Your task to perform on an android device: Open the web browser Image 0: 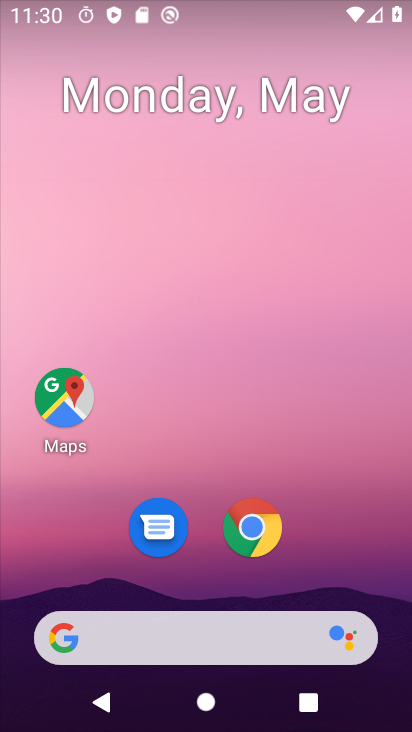
Step 0: drag from (392, 547) to (366, 223)
Your task to perform on an android device: Open the web browser Image 1: 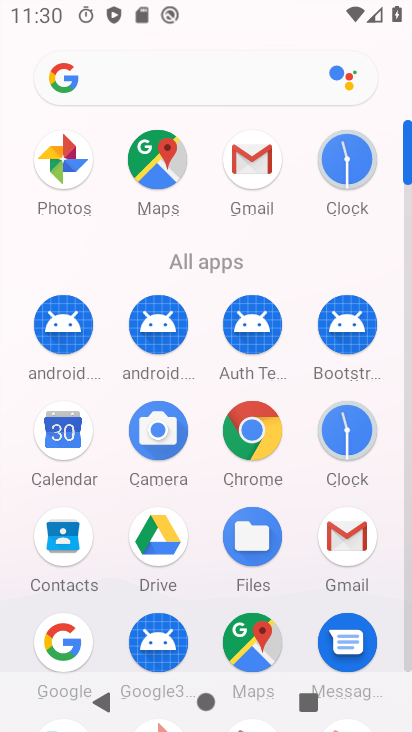
Step 1: drag from (185, 601) to (186, 268)
Your task to perform on an android device: Open the web browser Image 2: 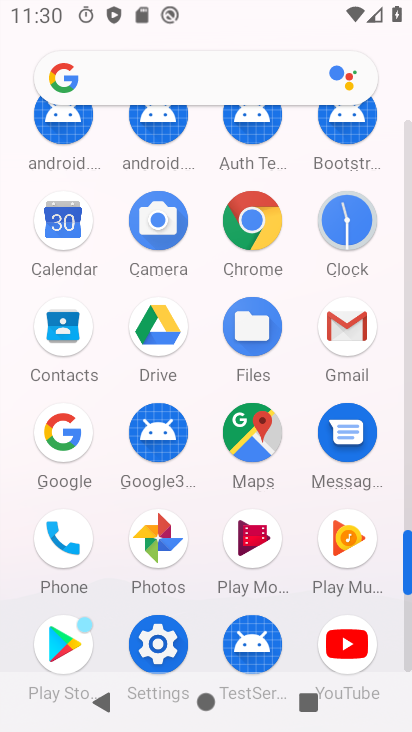
Step 2: drag from (200, 583) to (196, 279)
Your task to perform on an android device: Open the web browser Image 3: 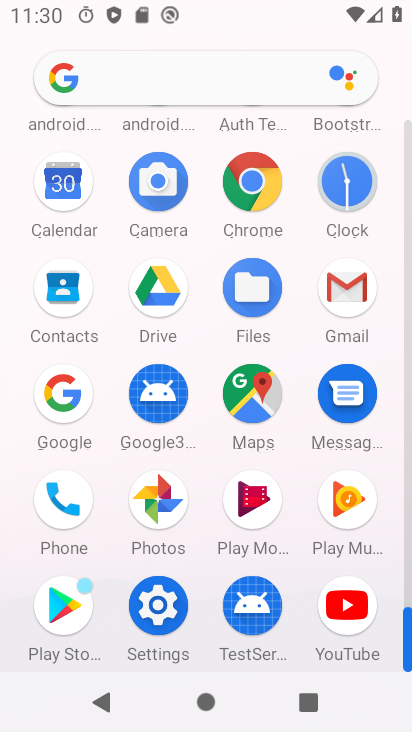
Step 3: drag from (221, 186) to (209, 619)
Your task to perform on an android device: Open the web browser Image 4: 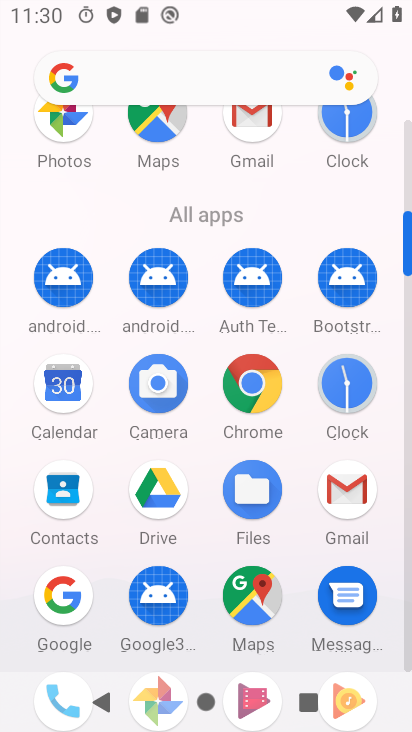
Step 4: drag from (208, 229) to (213, 604)
Your task to perform on an android device: Open the web browser Image 5: 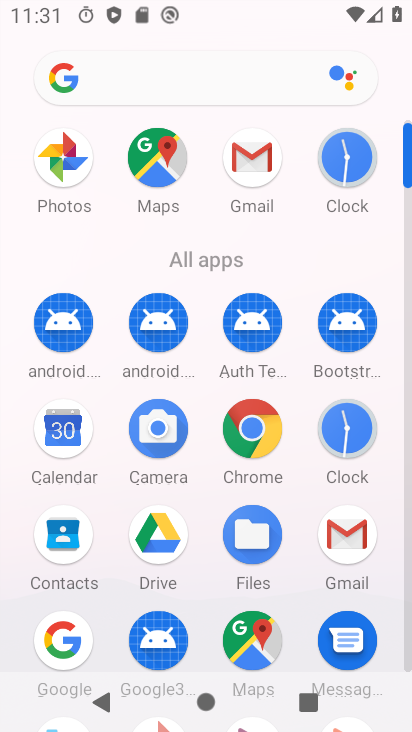
Step 5: drag from (237, 556) to (255, 231)
Your task to perform on an android device: Open the web browser Image 6: 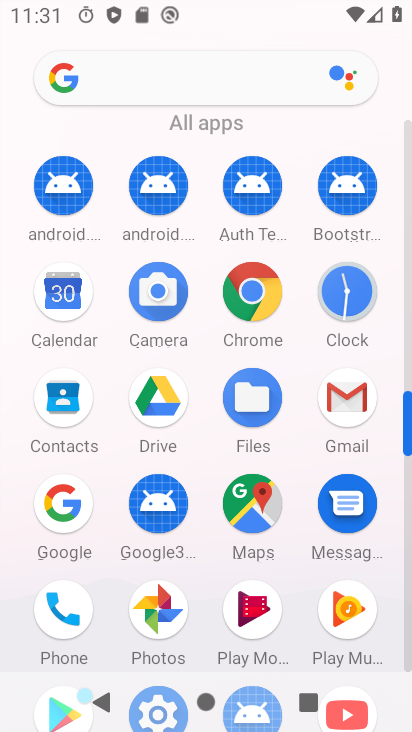
Step 6: drag from (225, 538) to (224, 268)
Your task to perform on an android device: Open the web browser Image 7: 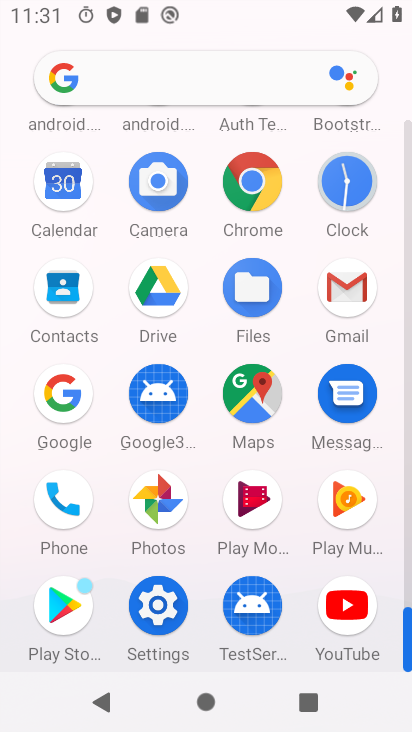
Step 7: click (244, 197)
Your task to perform on an android device: Open the web browser Image 8: 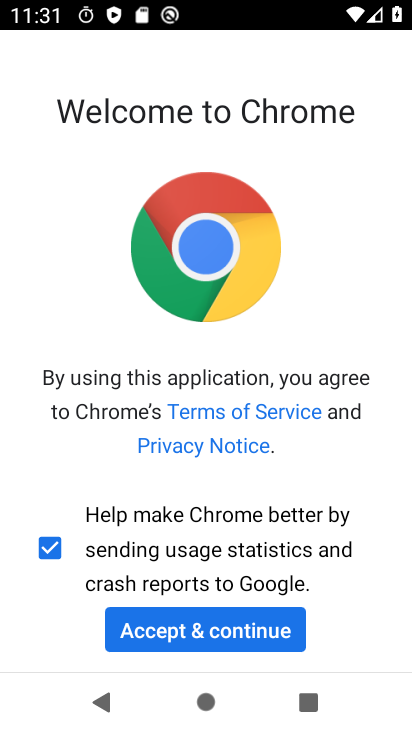
Step 8: click (217, 630)
Your task to perform on an android device: Open the web browser Image 9: 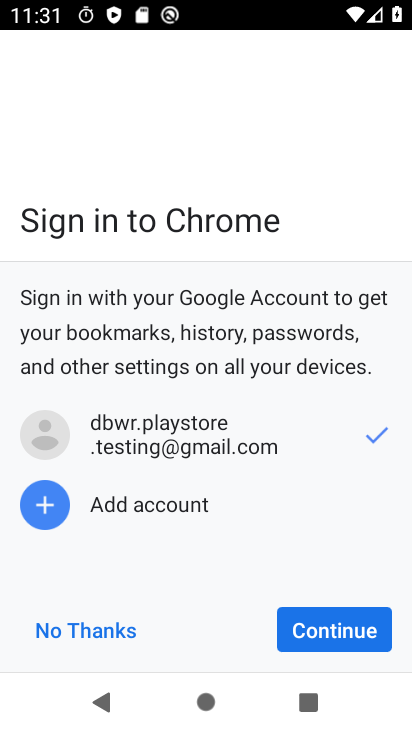
Step 9: click (338, 620)
Your task to perform on an android device: Open the web browser Image 10: 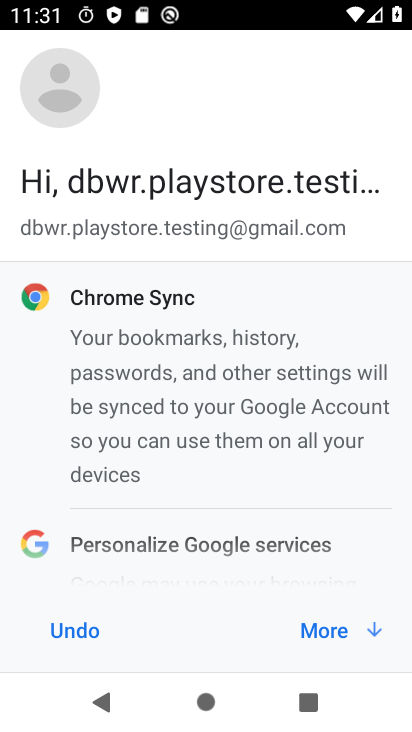
Step 10: click (335, 621)
Your task to perform on an android device: Open the web browser Image 11: 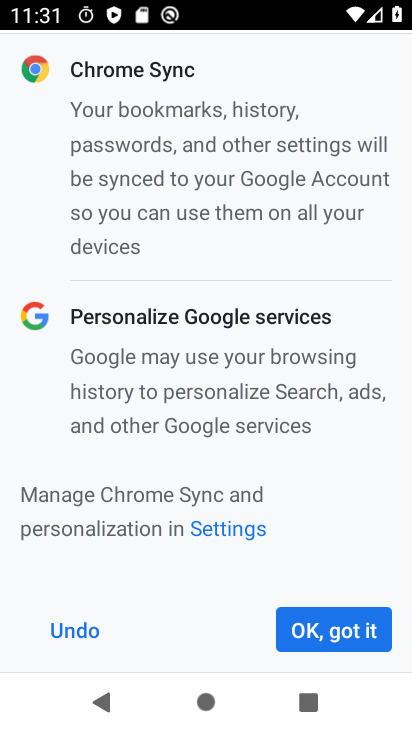
Step 11: click (336, 621)
Your task to perform on an android device: Open the web browser Image 12: 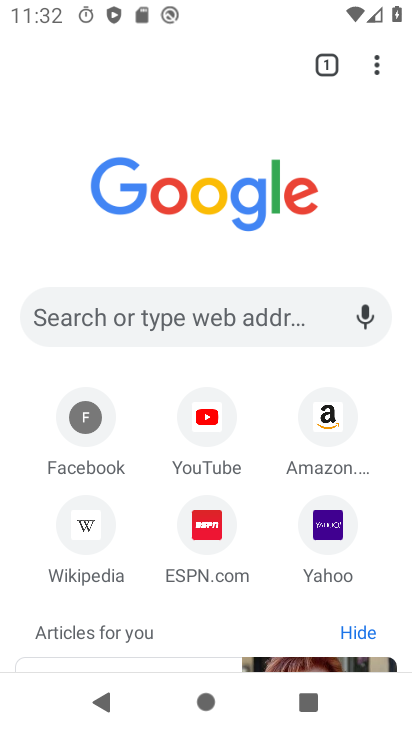
Step 12: task complete